Your task to perform on an android device: Search for vegetarian restaurants on Maps Image 0: 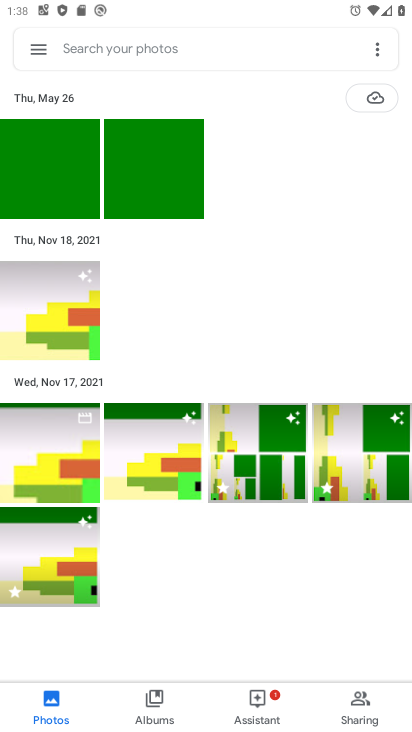
Step 0: press home button
Your task to perform on an android device: Search for vegetarian restaurants on Maps Image 1: 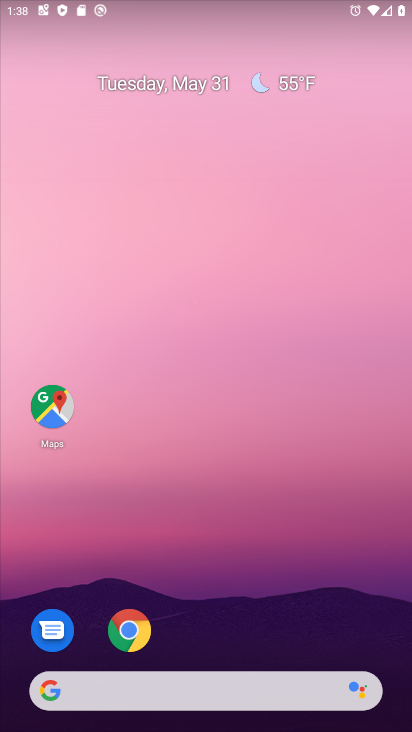
Step 1: drag from (282, 662) to (300, 248)
Your task to perform on an android device: Search for vegetarian restaurants on Maps Image 2: 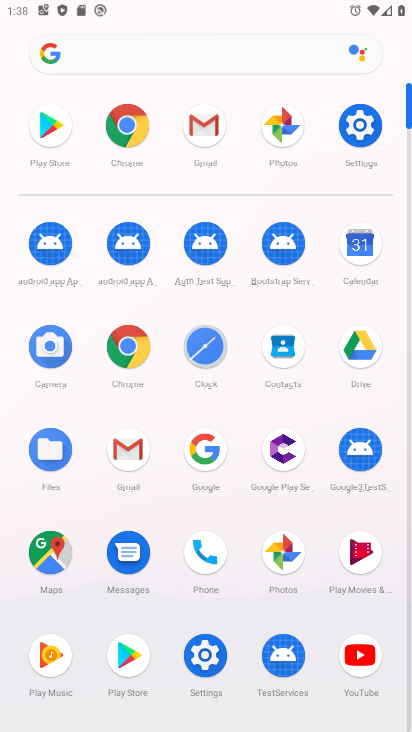
Step 2: click (43, 555)
Your task to perform on an android device: Search for vegetarian restaurants on Maps Image 3: 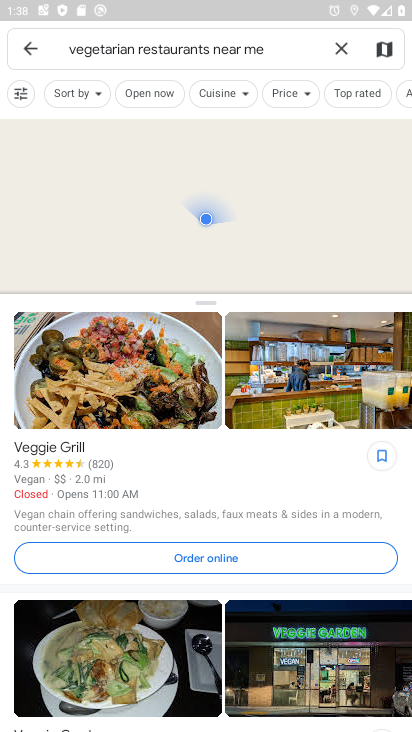
Step 3: task complete